Your task to perform on an android device: Play the last video I watched on Youtube Image 0: 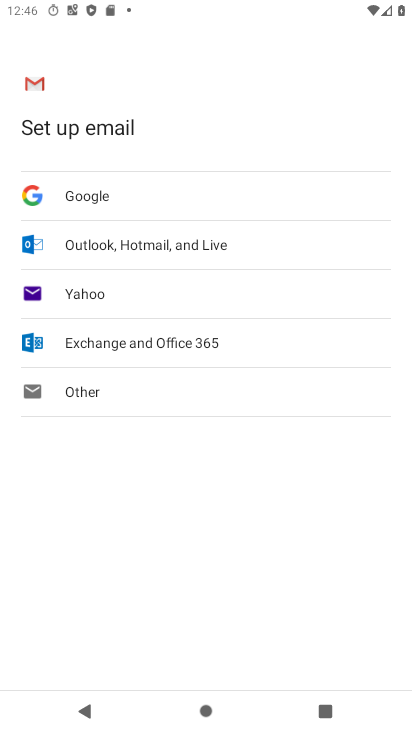
Step 0: press home button
Your task to perform on an android device: Play the last video I watched on Youtube Image 1: 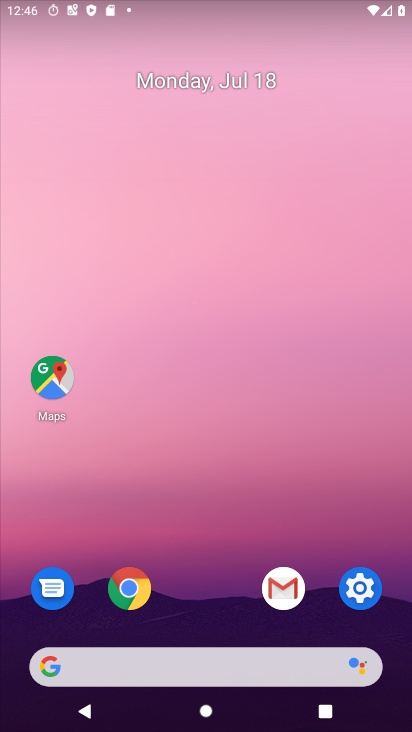
Step 1: drag from (305, 657) to (189, 180)
Your task to perform on an android device: Play the last video I watched on Youtube Image 2: 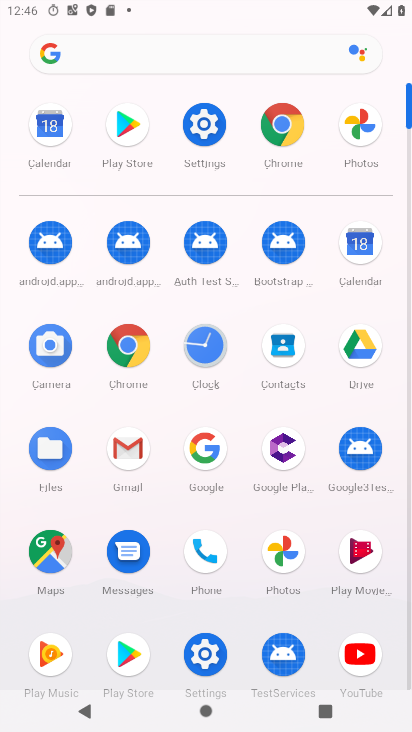
Step 2: click (358, 665)
Your task to perform on an android device: Play the last video I watched on Youtube Image 3: 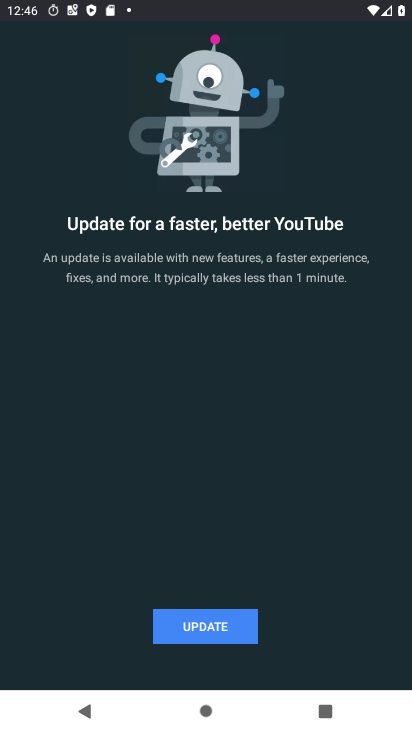
Step 3: click (201, 636)
Your task to perform on an android device: Play the last video I watched on Youtube Image 4: 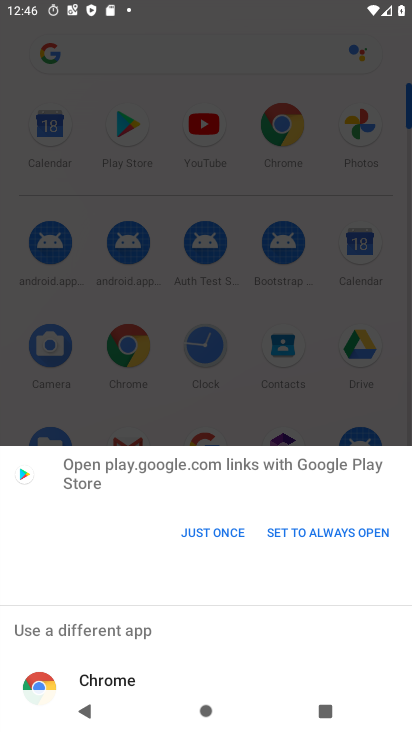
Step 4: click (204, 533)
Your task to perform on an android device: Play the last video I watched on Youtube Image 5: 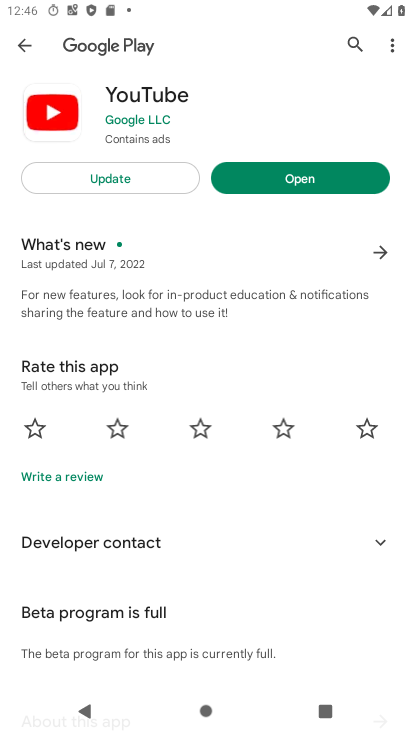
Step 5: click (114, 185)
Your task to perform on an android device: Play the last video I watched on Youtube Image 6: 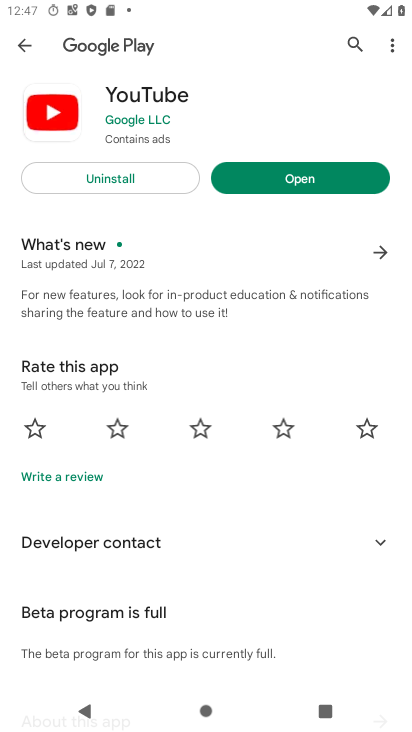
Step 6: click (303, 168)
Your task to perform on an android device: Play the last video I watched on Youtube Image 7: 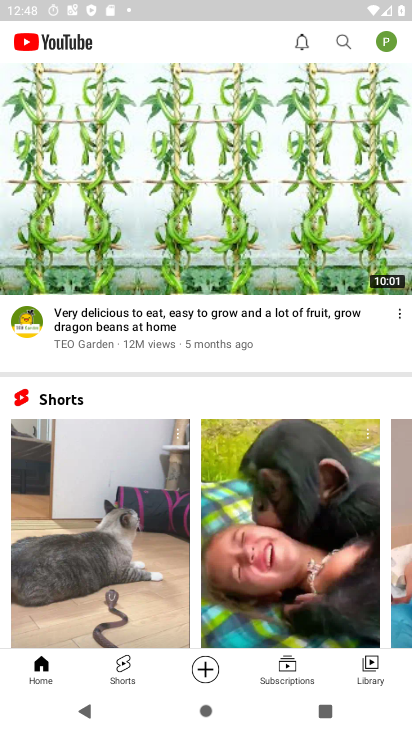
Step 7: click (368, 668)
Your task to perform on an android device: Play the last video I watched on Youtube Image 8: 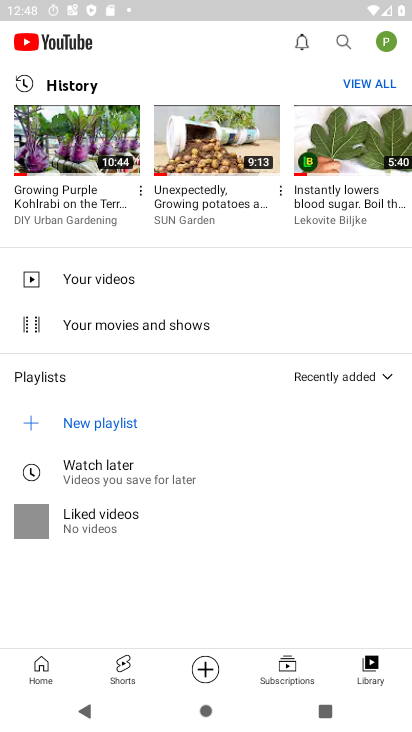
Step 8: click (52, 141)
Your task to perform on an android device: Play the last video I watched on Youtube Image 9: 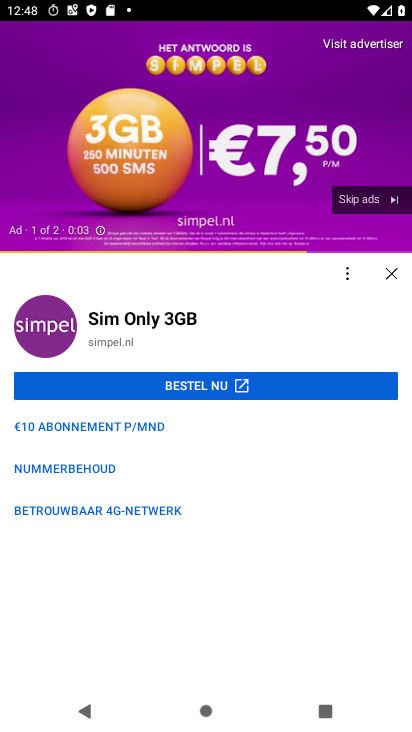
Step 9: click (392, 268)
Your task to perform on an android device: Play the last video I watched on Youtube Image 10: 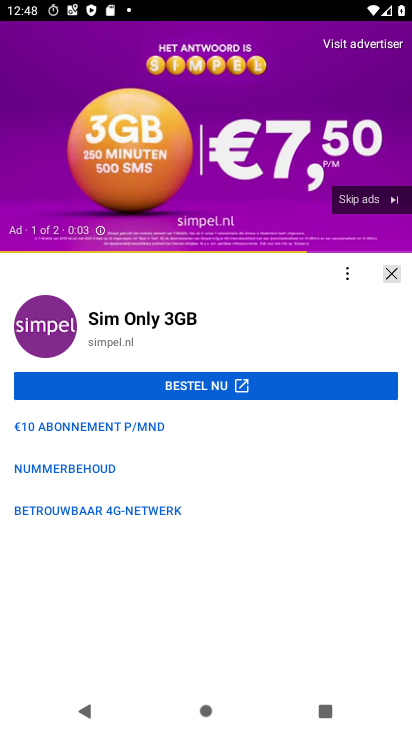
Step 10: click (352, 202)
Your task to perform on an android device: Play the last video I watched on Youtube Image 11: 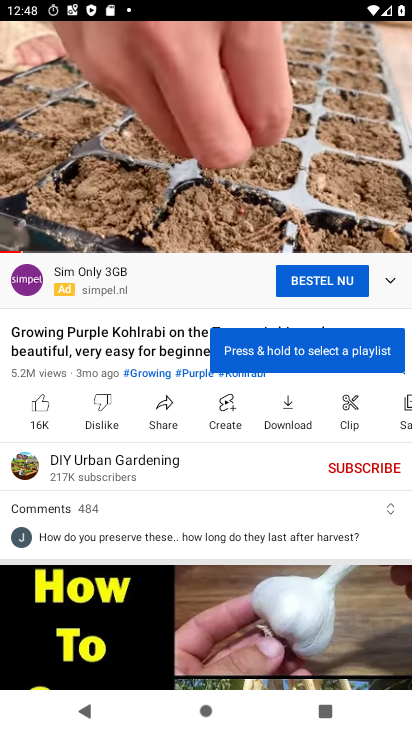
Step 11: task complete